Your task to perform on an android device: Open Youtube and go to the subscriptions tab Image 0: 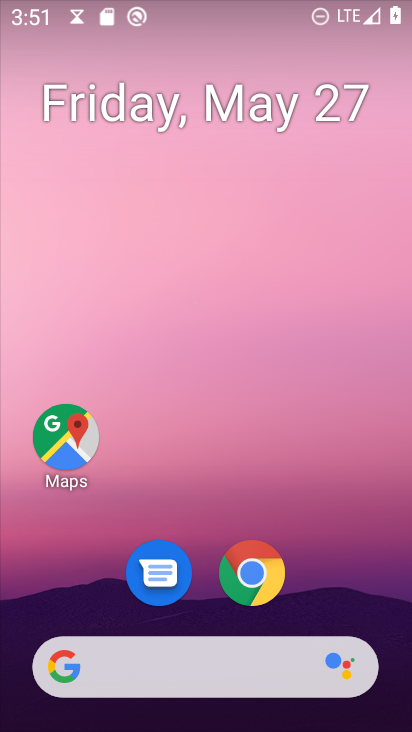
Step 0: drag from (338, 587) to (326, 39)
Your task to perform on an android device: Open Youtube and go to the subscriptions tab Image 1: 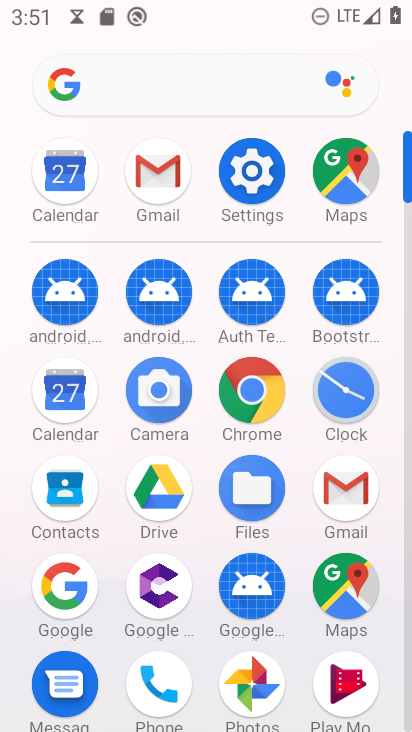
Step 1: drag from (296, 540) to (357, 74)
Your task to perform on an android device: Open Youtube and go to the subscriptions tab Image 2: 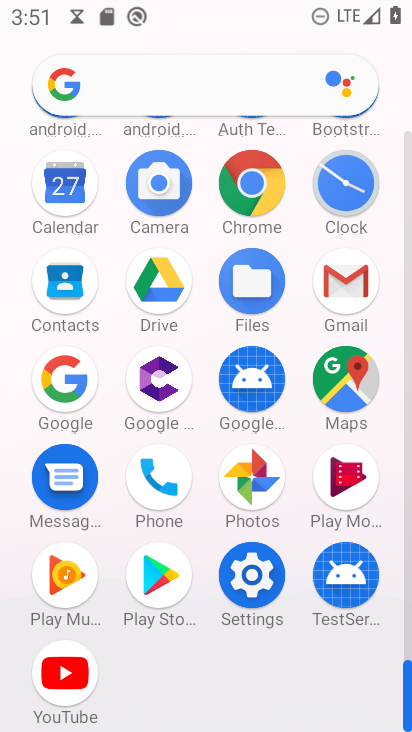
Step 2: click (68, 681)
Your task to perform on an android device: Open Youtube and go to the subscriptions tab Image 3: 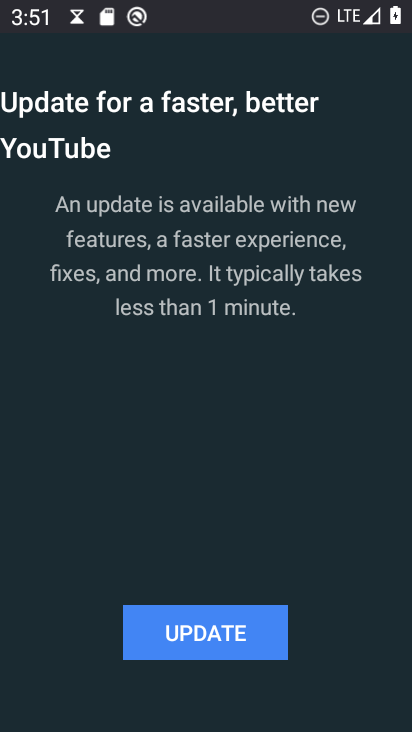
Step 3: drag from (202, 621) to (160, 621)
Your task to perform on an android device: Open Youtube and go to the subscriptions tab Image 4: 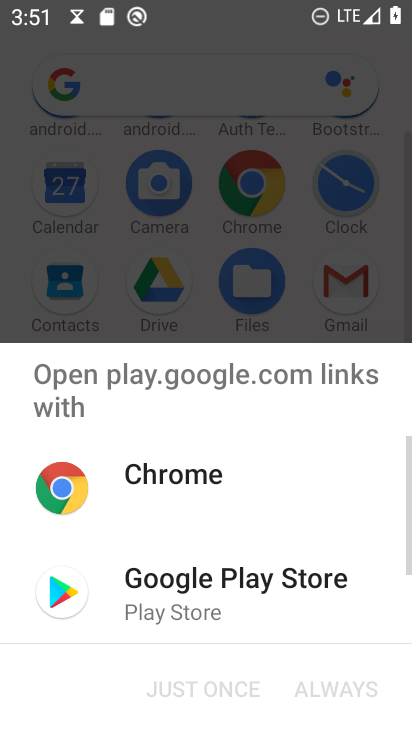
Step 4: click (197, 595)
Your task to perform on an android device: Open Youtube and go to the subscriptions tab Image 5: 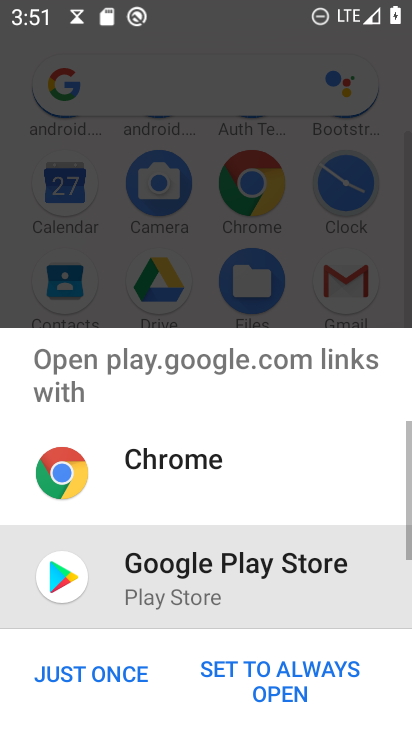
Step 5: click (122, 684)
Your task to perform on an android device: Open Youtube and go to the subscriptions tab Image 6: 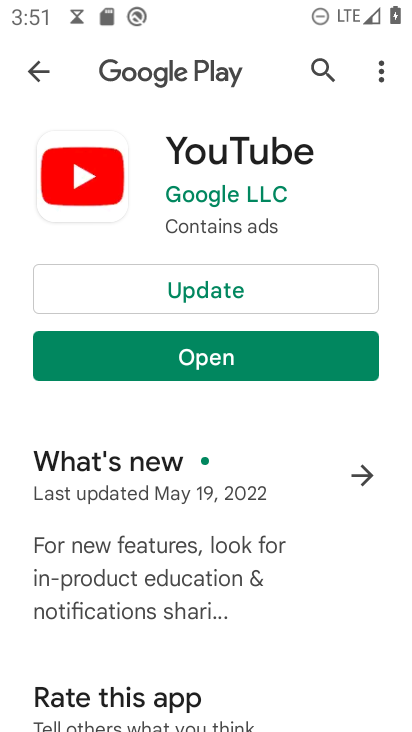
Step 6: click (164, 289)
Your task to perform on an android device: Open Youtube and go to the subscriptions tab Image 7: 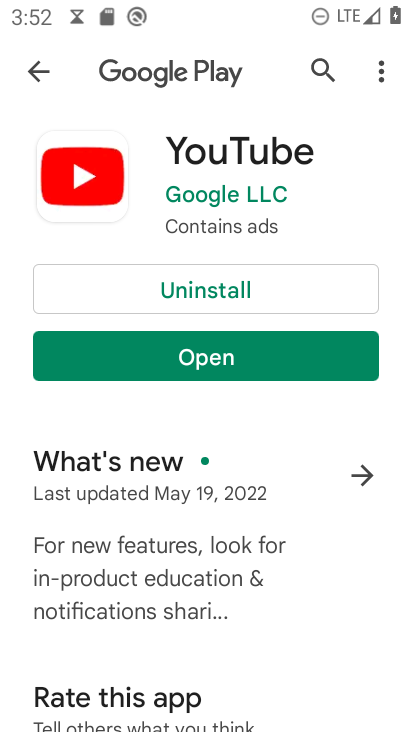
Step 7: click (207, 361)
Your task to perform on an android device: Open Youtube and go to the subscriptions tab Image 8: 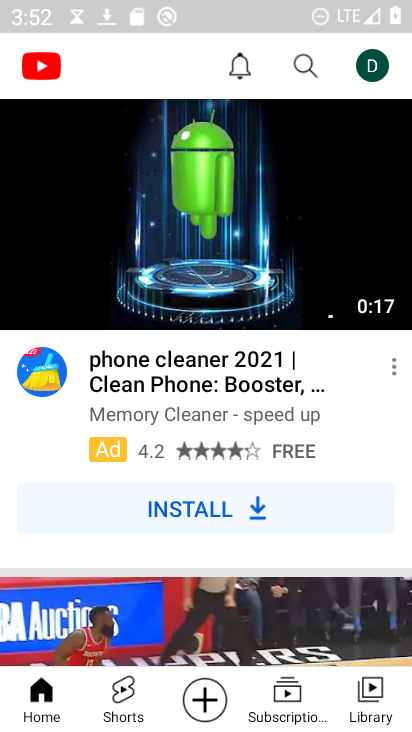
Step 8: click (287, 692)
Your task to perform on an android device: Open Youtube and go to the subscriptions tab Image 9: 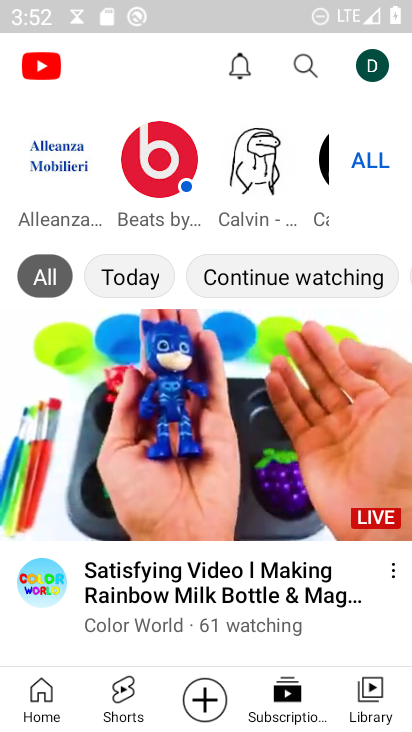
Step 9: task complete